Your task to perform on an android device: change notifications settings Image 0: 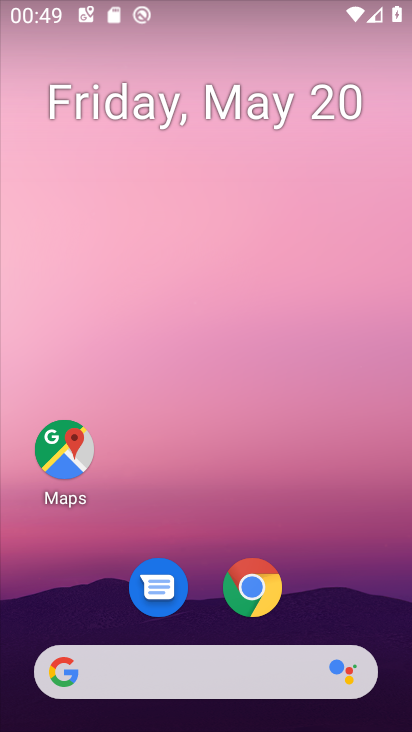
Step 0: drag from (379, 592) to (352, 69)
Your task to perform on an android device: change notifications settings Image 1: 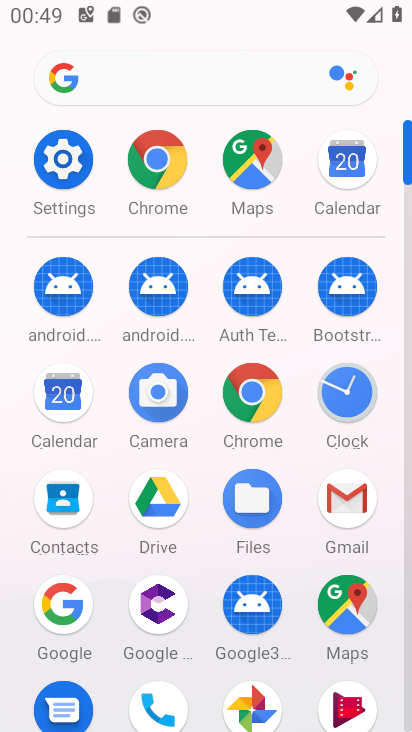
Step 1: click (63, 170)
Your task to perform on an android device: change notifications settings Image 2: 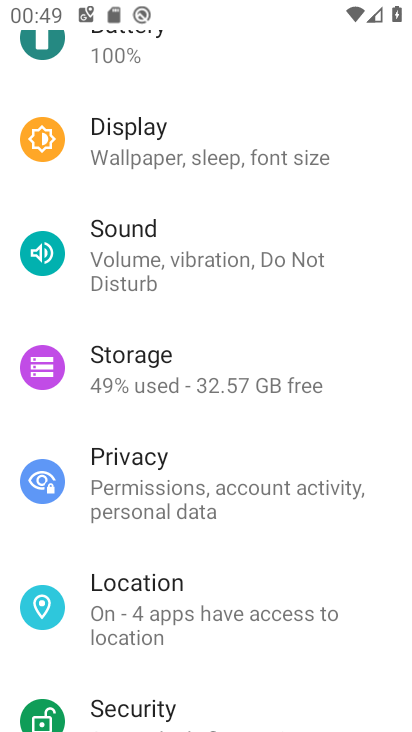
Step 2: drag from (380, 288) to (370, 376)
Your task to perform on an android device: change notifications settings Image 3: 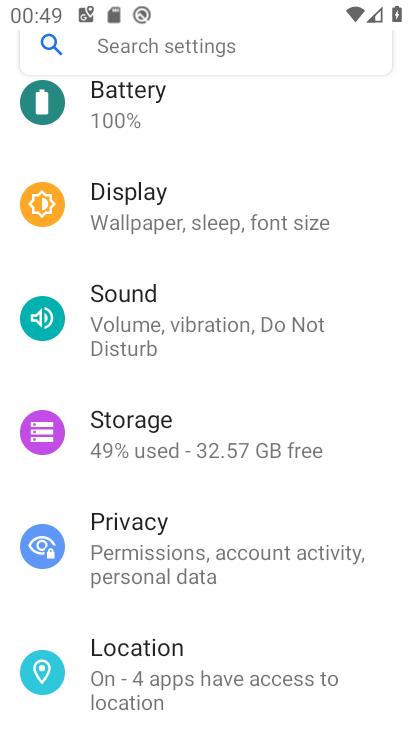
Step 3: drag from (372, 294) to (367, 388)
Your task to perform on an android device: change notifications settings Image 4: 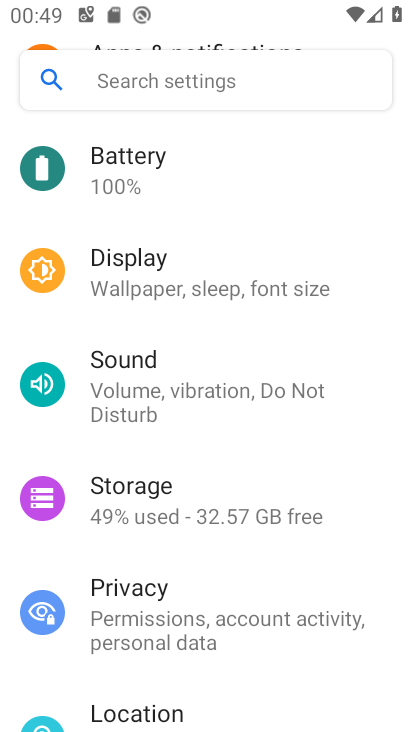
Step 4: drag from (361, 258) to (366, 344)
Your task to perform on an android device: change notifications settings Image 5: 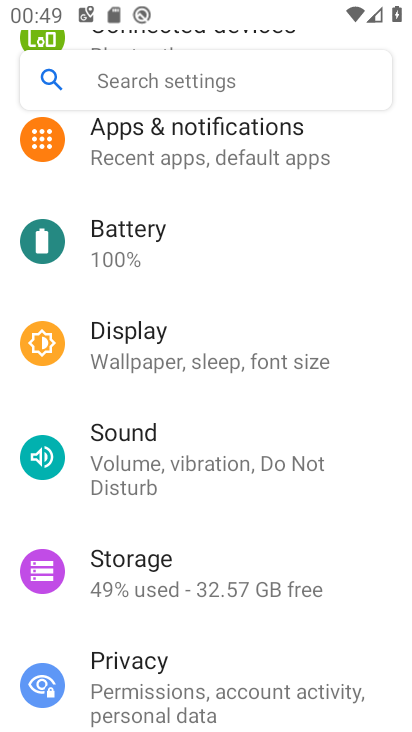
Step 5: drag from (365, 288) to (369, 348)
Your task to perform on an android device: change notifications settings Image 6: 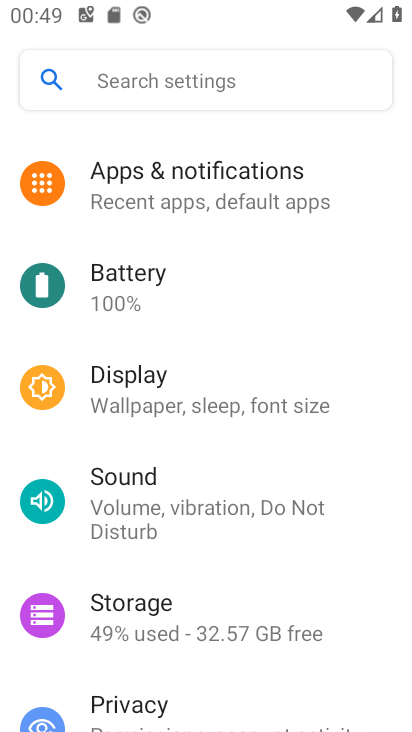
Step 6: drag from (365, 254) to (365, 332)
Your task to perform on an android device: change notifications settings Image 7: 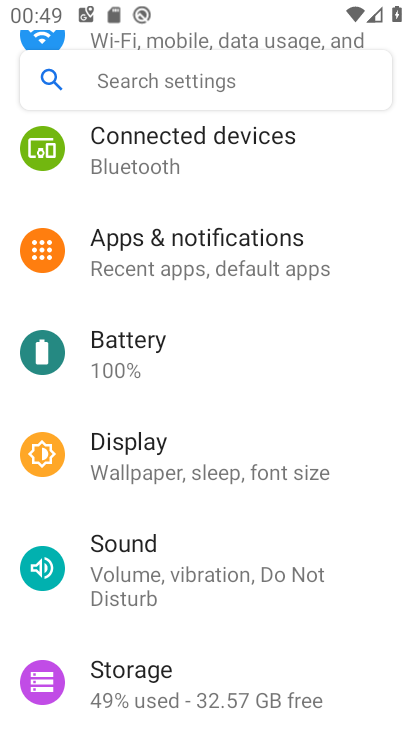
Step 7: drag from (366, 252) to (362, 323)
Your task to perform on an android device: change notifications settings Image 8: 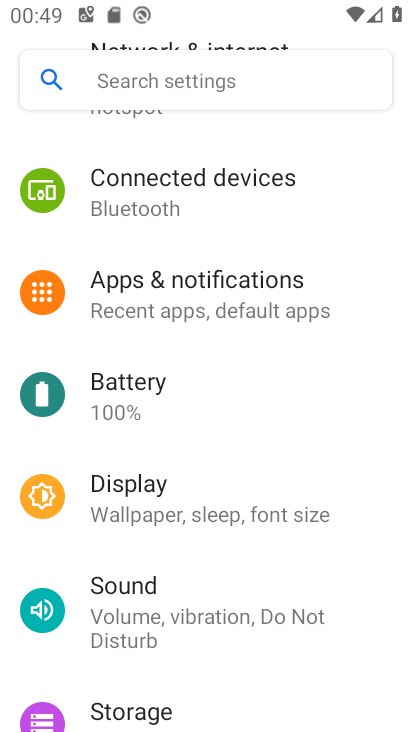
Step 8: drag from (362, 323) to (353, 385)
Your task to perform on an android device: change notifications settings Image 9: 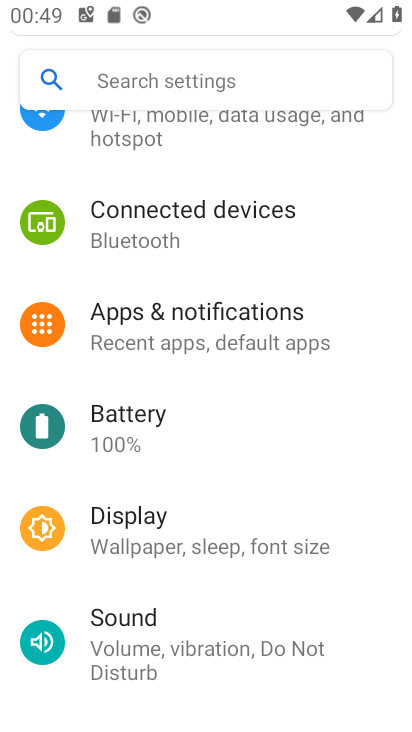
Step 9: drag from (362, 281) to (358, 336)
Your task to perform on an android device: change notifications settings Image 10: 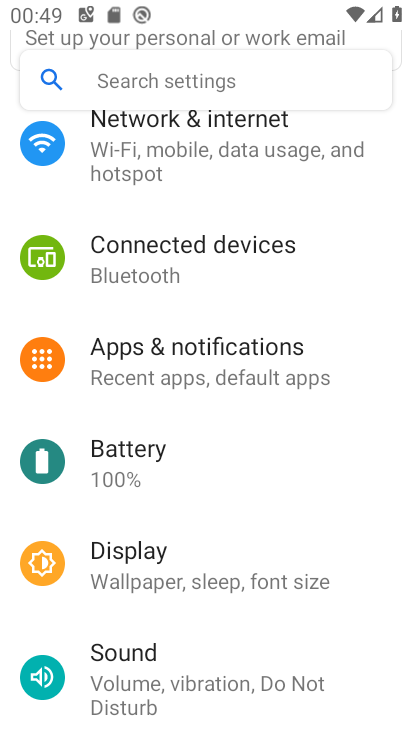
Step 10: drag from (351, 284) to (348, 330)
Your task to perform on an android device: change notifications settings Image 11: 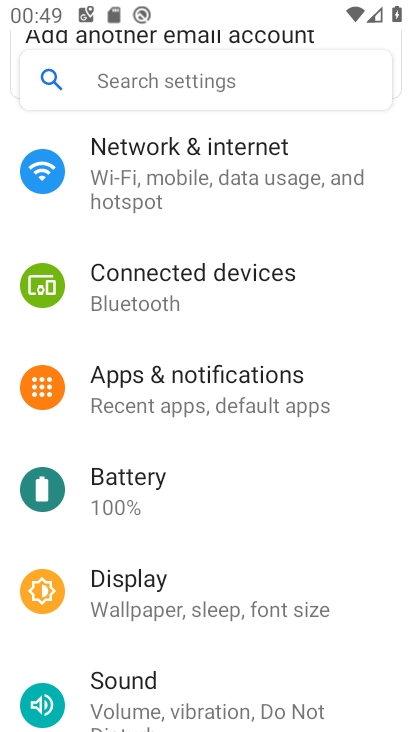
Step 11: click (279, 394)
Your task to perform on an android device: change notifications settings Image 12: 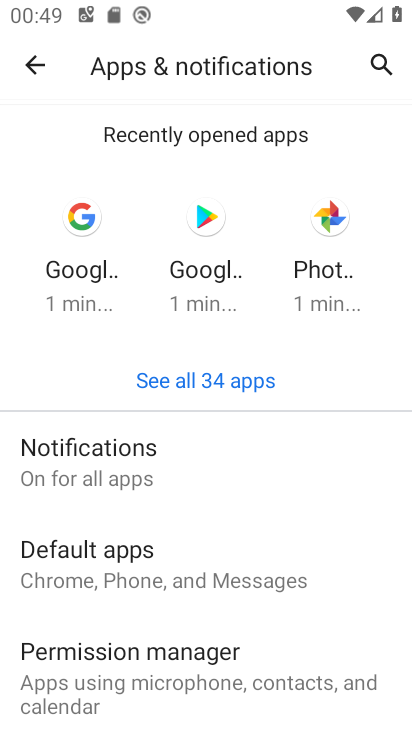
Step 12: click (122, 480)
Your task to perform on an android device: change notifications settings Image 13: 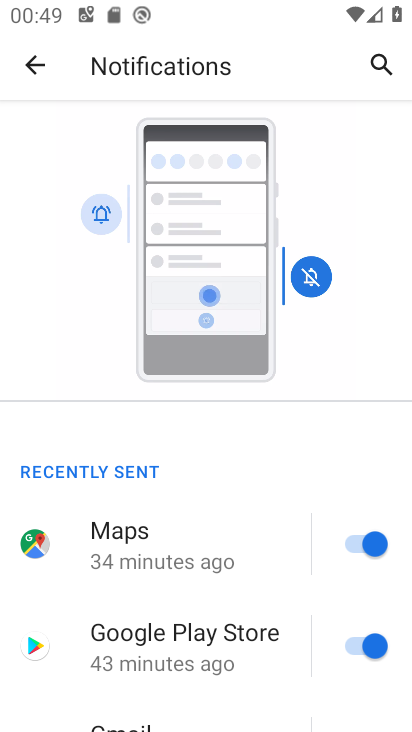
Step 13: drag from (230, 499) to (240, 341)
Your task to perform on an android device: change notifications settings Image 14: 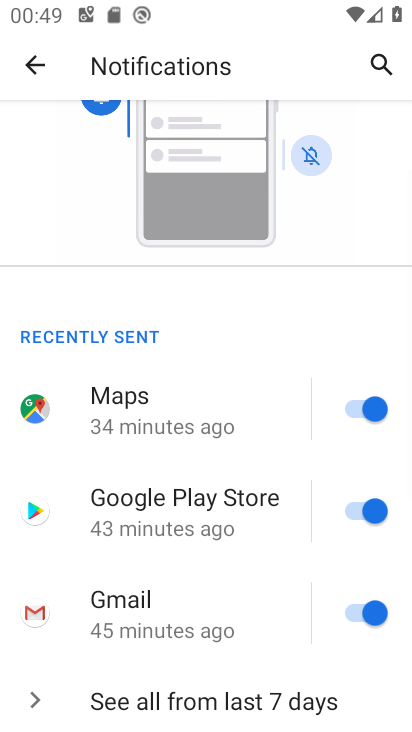
Step 14: drag from (240, 494) to (245, 378)
Your task to perform on an android device: change notifications settings Image 15: 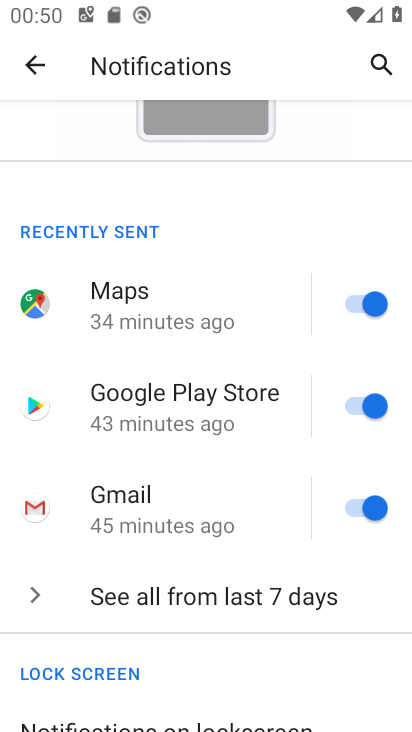
Step 15: click (361, 298)
Your task to perform on an android device: change notifications settings Image 16: 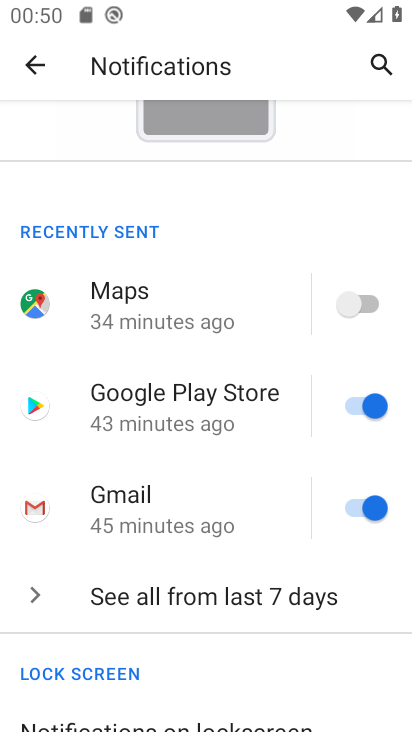
Step 16: click (368, 408)
Your task to perform on an android device: change notifications settings Image 17: 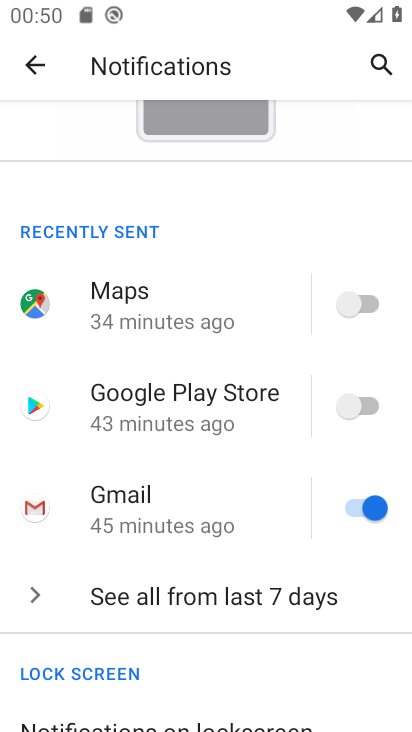
Step 17: click (374, 512)
Your task to perform on an android device: change notifications settings Image 18: 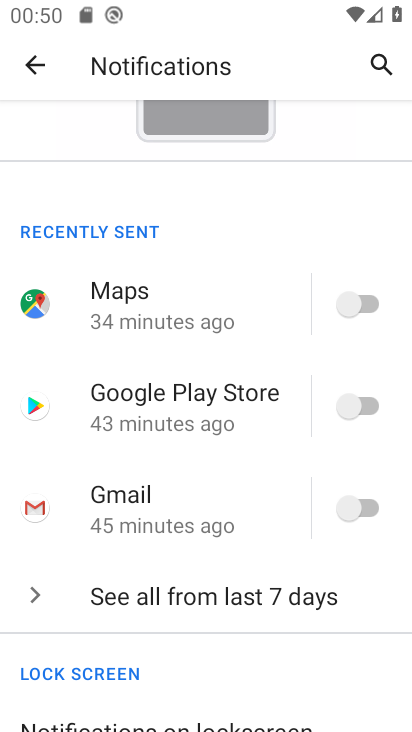
Step 18: task complete